Your task to perform on an android device: Open calendar and show me the second week of next month Image 0: 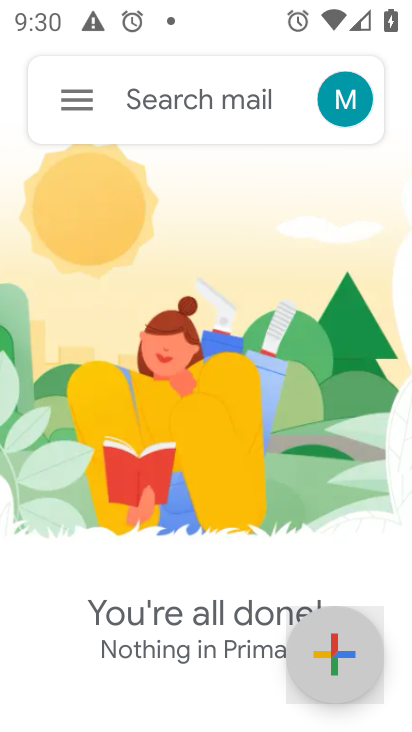
Step 0: press home button
Your task to perform on an android device: Open calendar and show me the second week of next month Image 1: 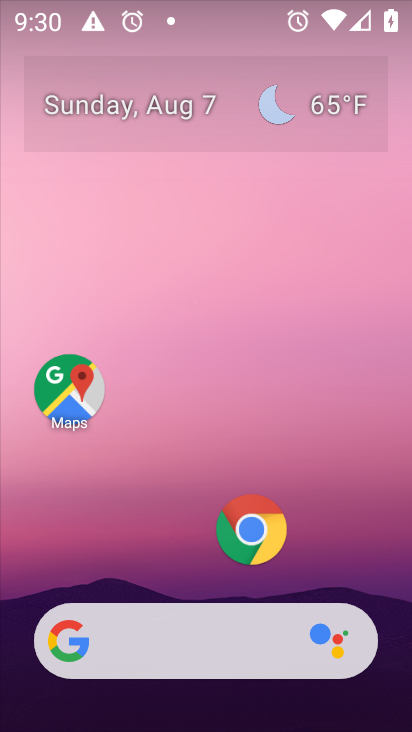
Step 1: drag from (152, 443) to (168, 100)
Your task to perform on an android device: Open calendar and show me the second week of next month Image 2: 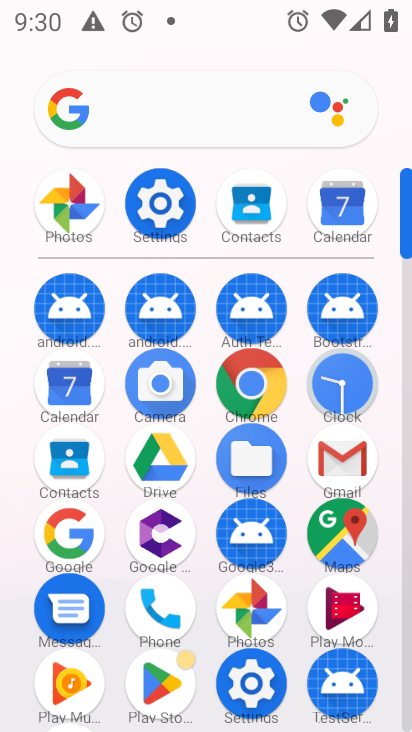
Step 2: click (58, 390)
Your task to perform on an android device: Open calendar and show me the second week of next month Image 3: 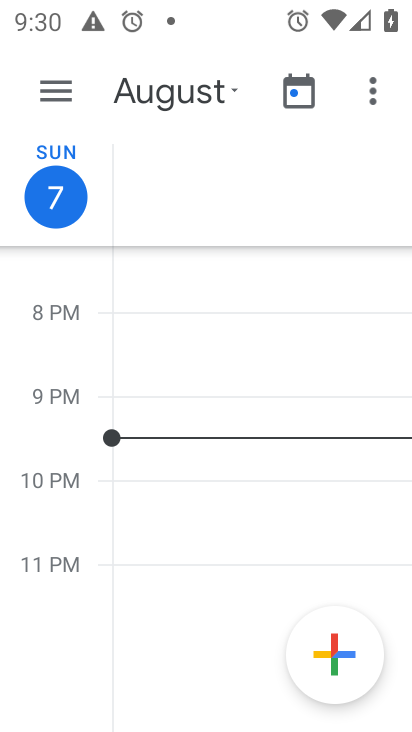
Step 3: click (191, 91)
Your task to perform on an android device: Open calendar and show me the second week of next month Image 4: 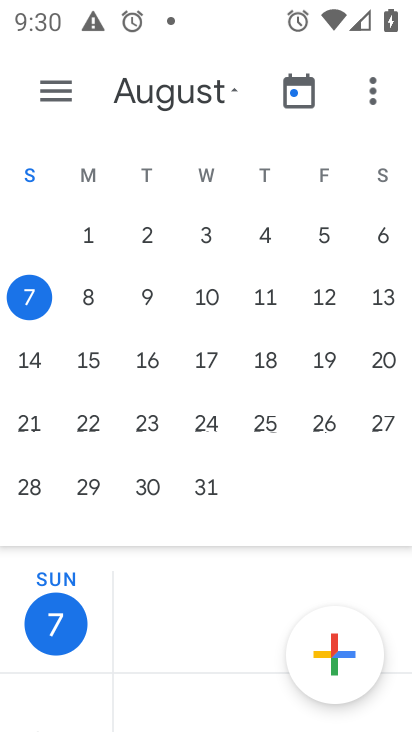
Step 4: drag from (292, 322) to (0, 344)
Your task to perform on an android device: Open calendar and show me the second week of next month Image 5: 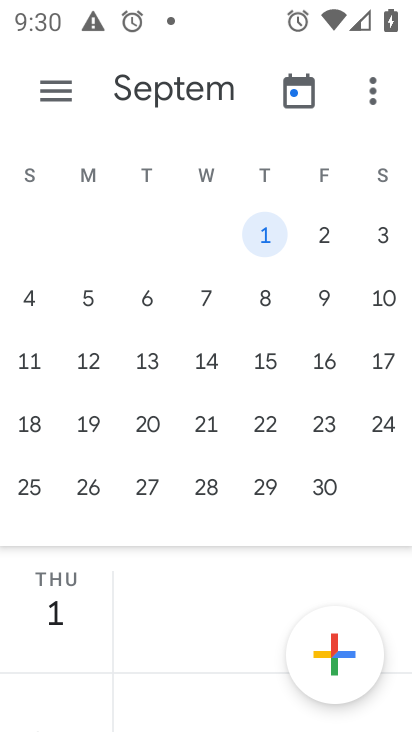
Step 5: click (163, 359)
Your task to perform on an android device: Open calendar and show me the second week of next month Image 6: 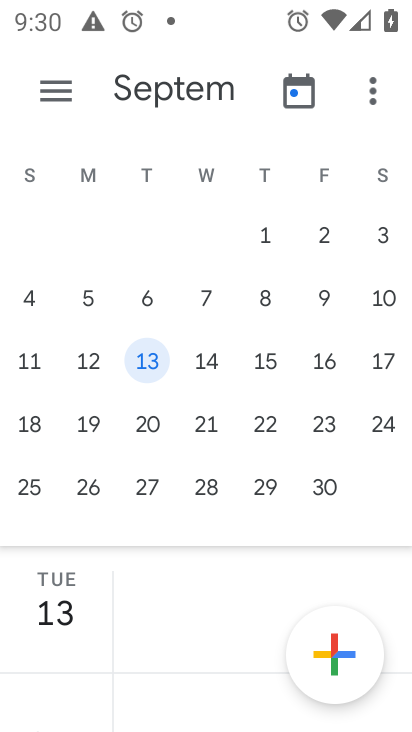
Step 6: click (53, 100)
Your task to perform on an android device: Open calendar and show me the second week of next month Image 7: 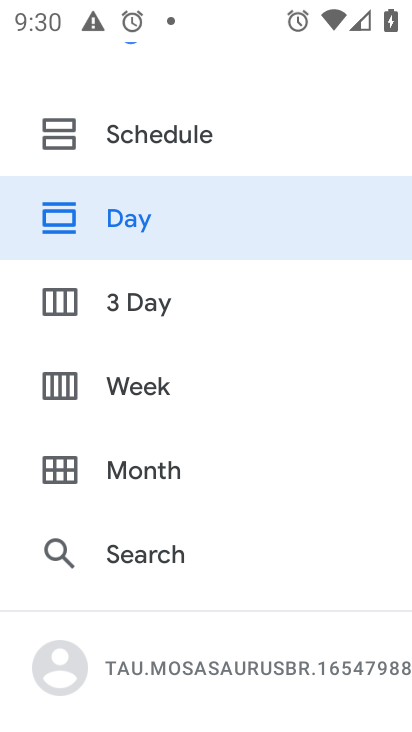
Step 7: click (147, 390)
Your task to perform on an android device: Open calendar and show me the second week of next month Image 8: 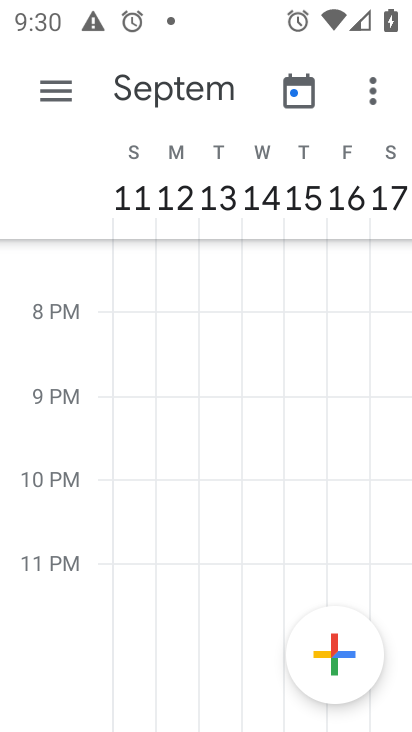
Step 8: task complete